Your task to perform on an android device: toggle translation in the chrome app Image 0: 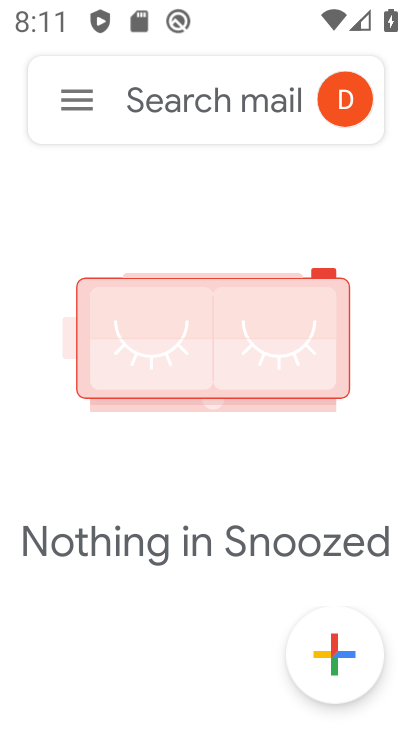
Step 0: press home button
Your task to perform on an android device: toggle translation in the chrome app Image 1: 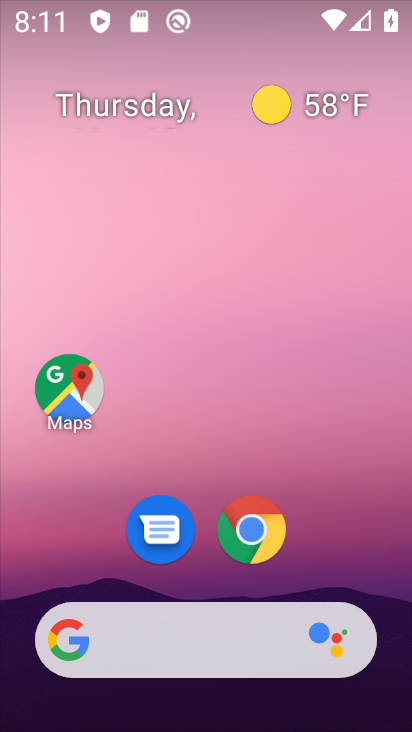
Step 1: click (249, 530)
Your task to perform on an android device: toggle translation in the chrome app Image 2: 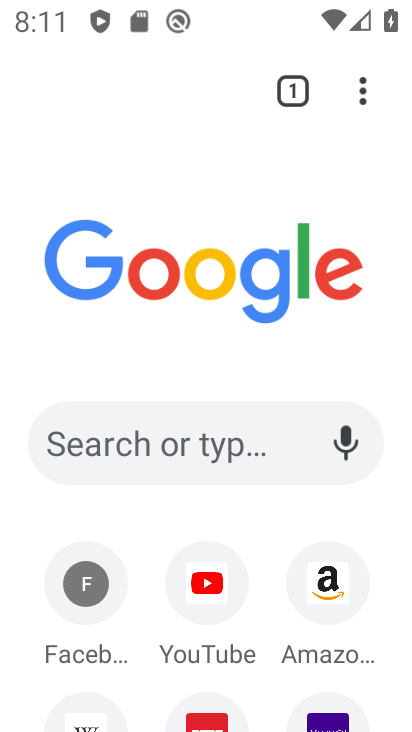
Step 2: click (351, 95)
Your task to perform on an android device: toggle translation in the chrome app Image 3: 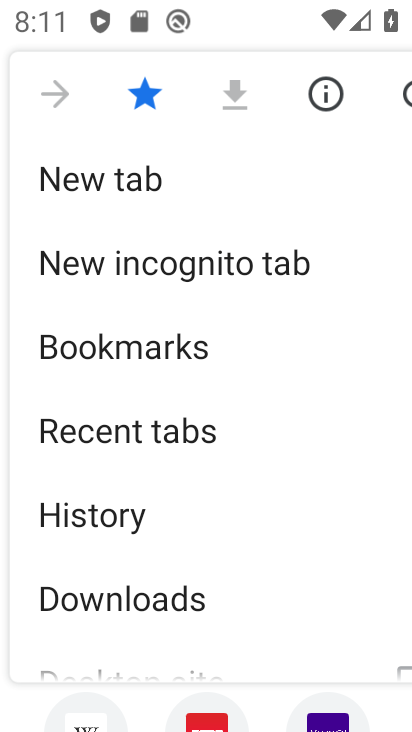
Step 3: drag from (240, 570) to (270, 150)
Your task to perform on an android device: toggle translation in the chrome app Image 4: 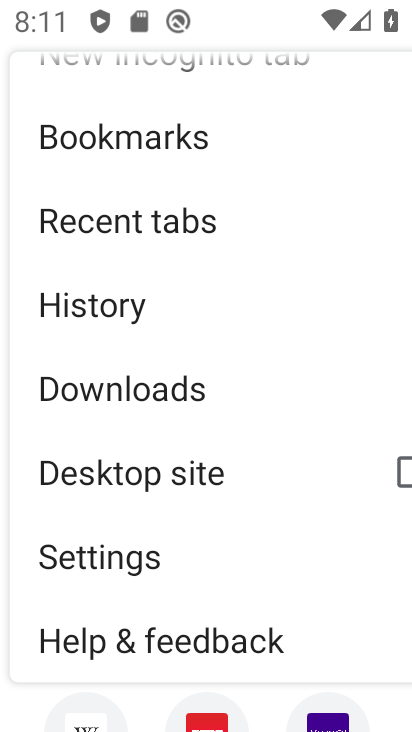
Step 4: click (173, 557)
Your task to perform on an android device: toggle translation in the chrome app Image 5: 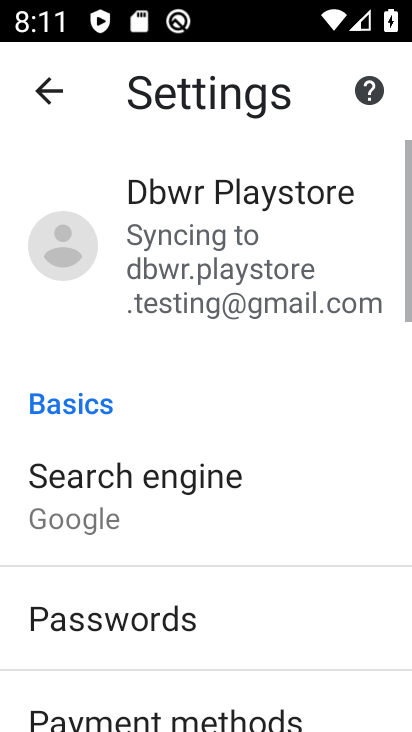
Step 5: drag from (266, 599) to (250, 50)
Your task to perform on an android device: toggle translation in the chrome app Image 6: 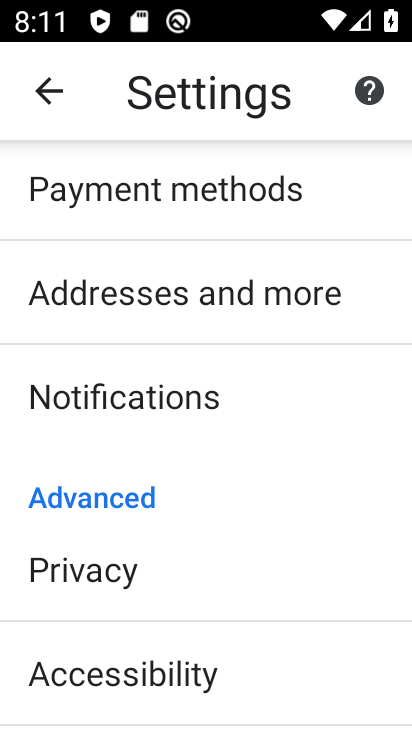
Step 6: drag from (219, 602) to (206, 196)
Your task to perform on an android device: toggle translation in the chrome app Image 7: 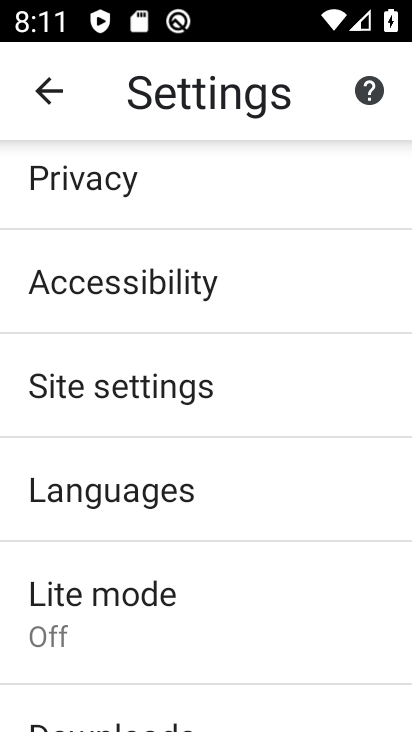
Step 7: click (112, 448)
Your task to perform on an android device: toggle translation in the chrome app Image 8: 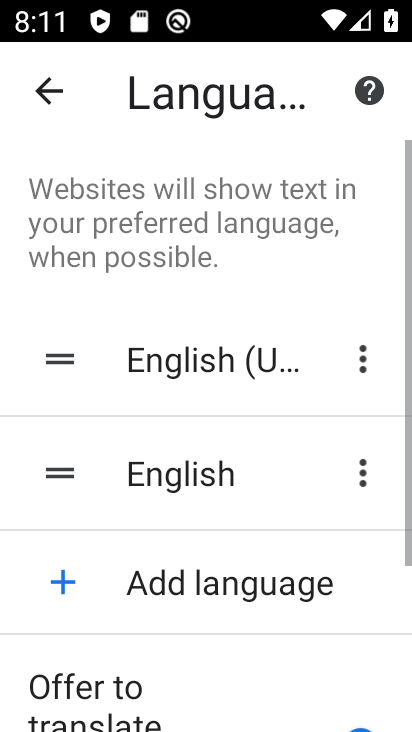
Step 8: drag from (321, 631) to (311, 491)
Your task to perform on an android device: toggle translation in the chrome app Image 9: 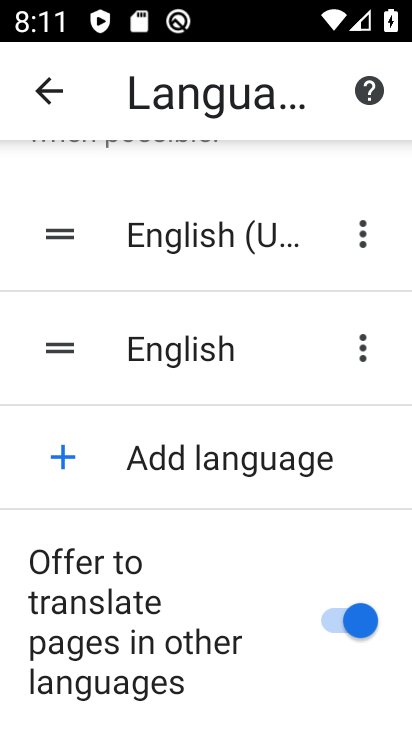
Step 9: click (348, 624)
Your task to perform on an android device: toggle translation in the chrome app Image 10: 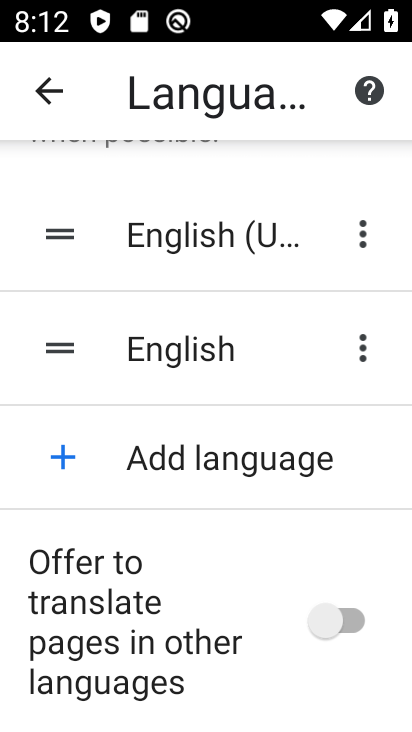
Step 10: task complete